Your task to perform on an android device: turn on javascript in the chrome app Image 0: 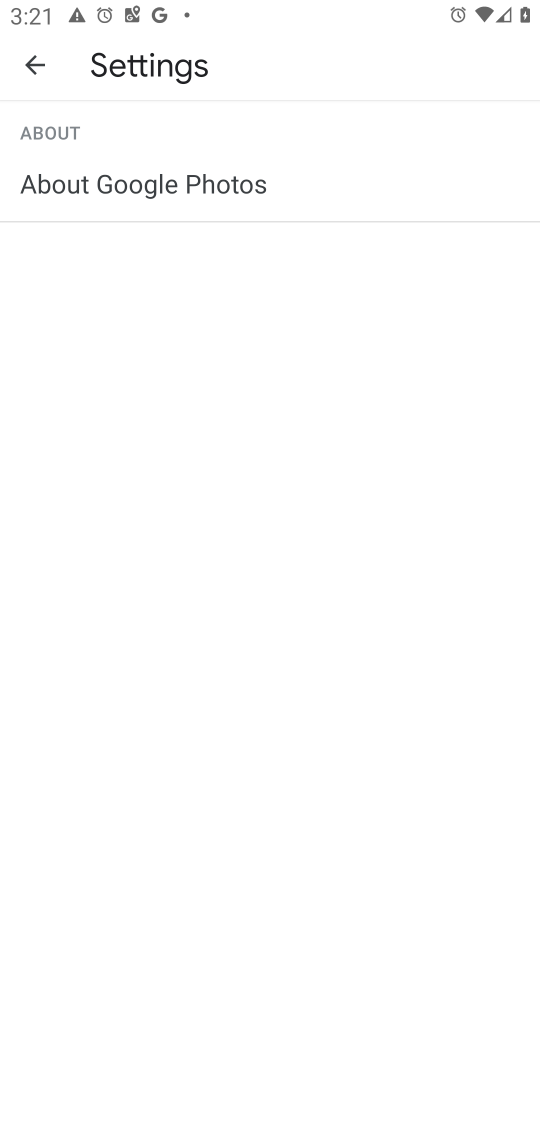
Step 0: press home button
Your task to perform on an android device: turn on javascript in the chrome app Image 1: 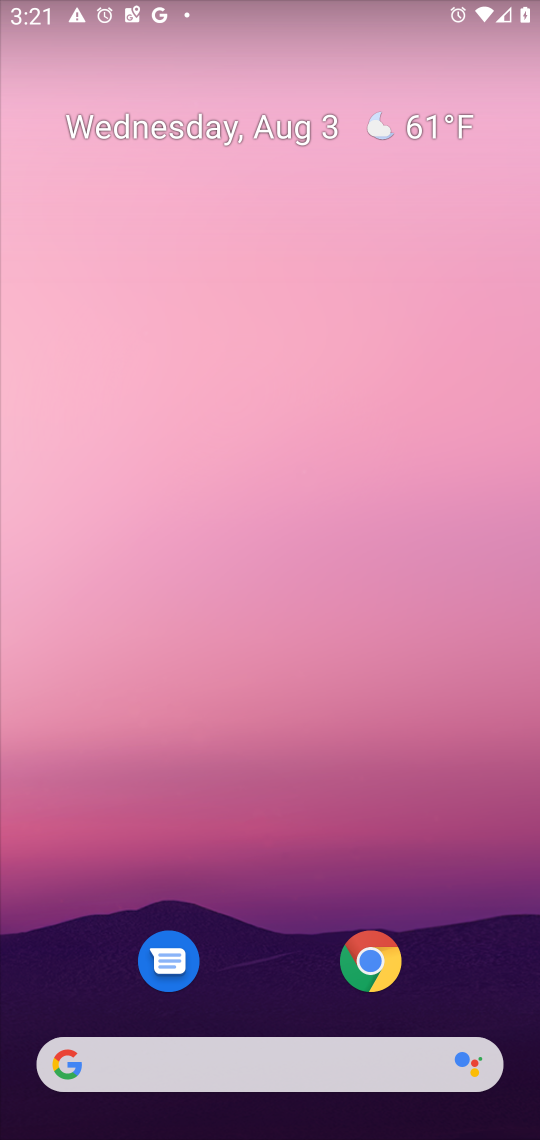
Step 1: click (372, 961)
Your task to perform on an android device: turn on javascript in the chrome app Image 2: 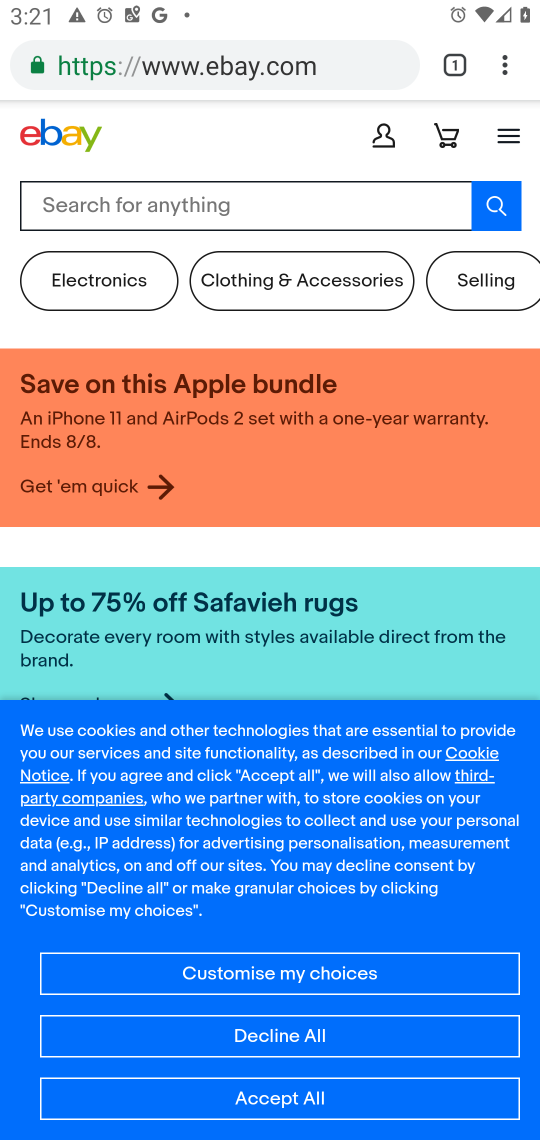
Step 2: click (503, 68)
Your task to perform on an android device: turn on javascript in the chrome app Image 3: 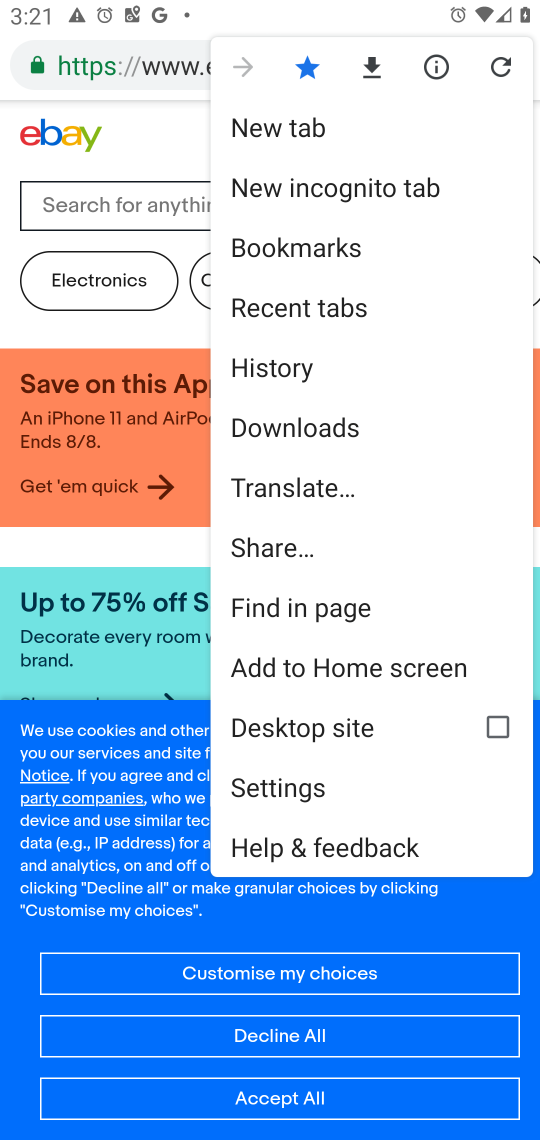
Step 3: click (280, 787)
Your task to perform on an android device: turn on javascript in the chrome app Image 4: 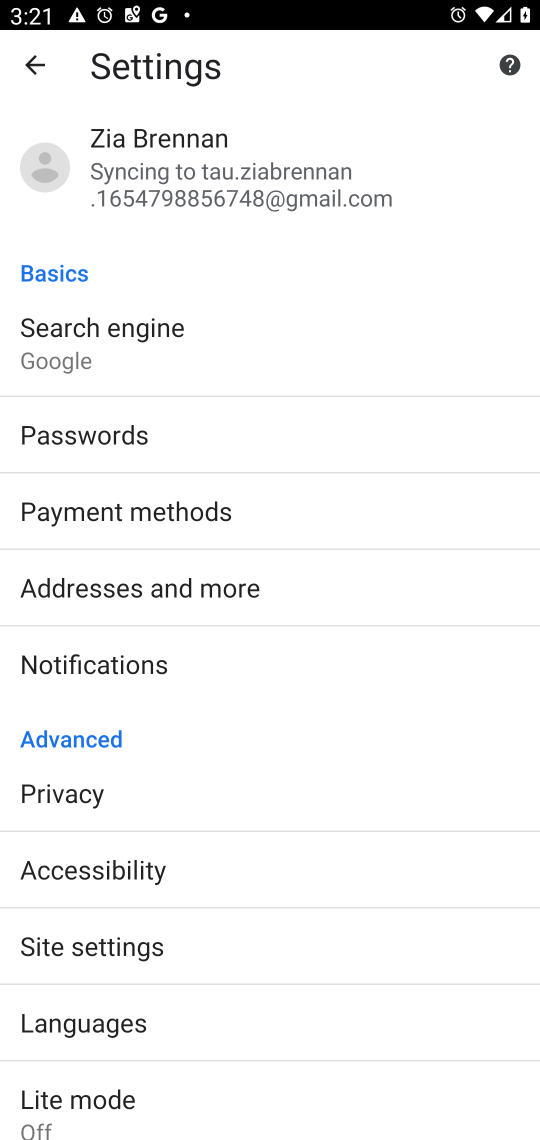
Step 4: click (132, 938)
Your task to perform on an android device: turn on javascript in the chrome app Image 5: 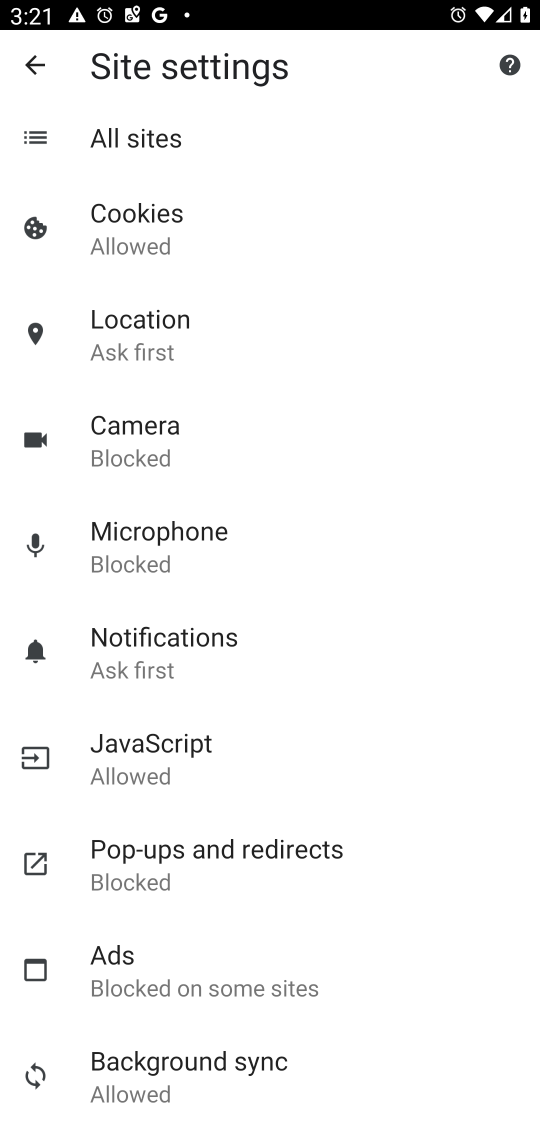
Step 5: click (145, 753)
Your task to perform on an android device: turn on javascript in the chrome app Image 6: 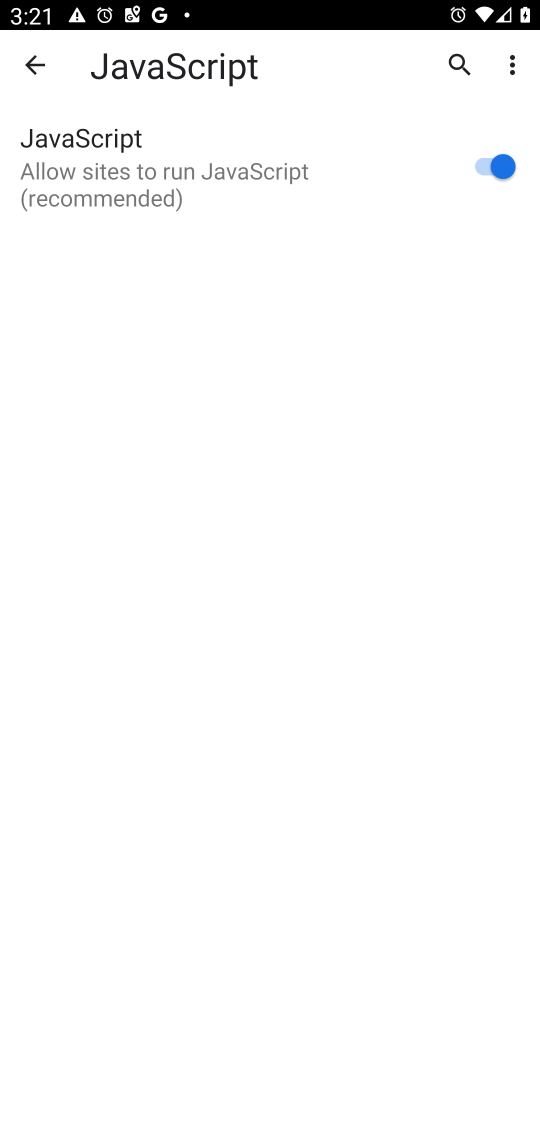
Step 6: task complete